Your task to perform on an android device: turn off improve location accuracy Image 0: 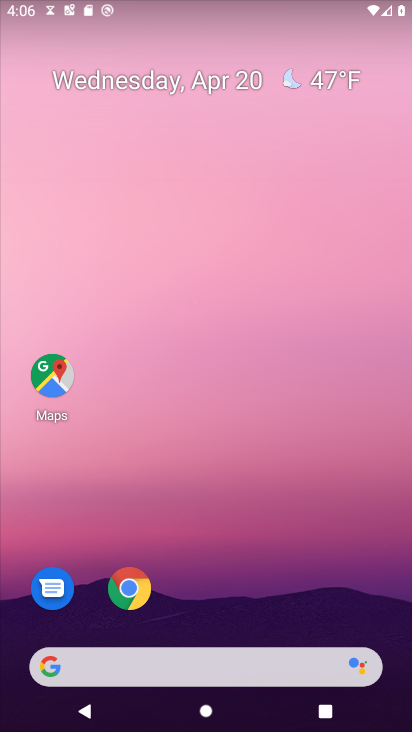
Step 0: drag from (252, 586) to (333, 26)
Your task to perform on an android device: turn off improve location accuracy Image 1: 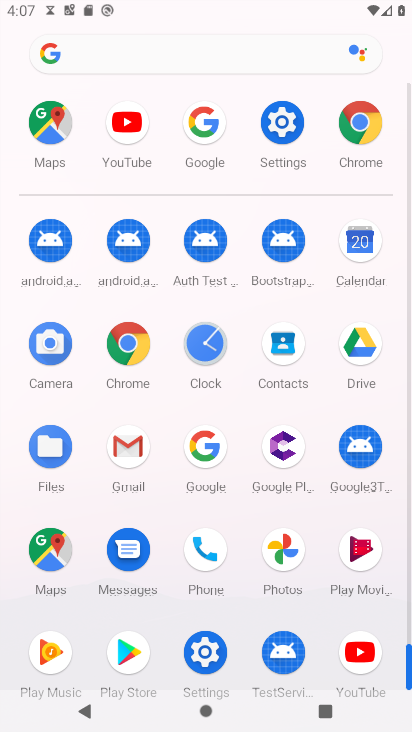
Step 1: click (210, 644)
Your task to perform on an android device: turn off improve location accuracy Image 2: 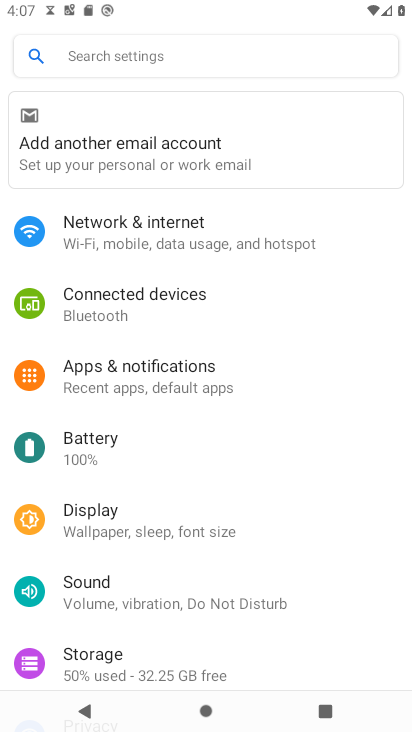
Step 2: drag from (148, 607) to (171, 535)
Your task to perform on an android device: turn off improve location accuracy Image 3: 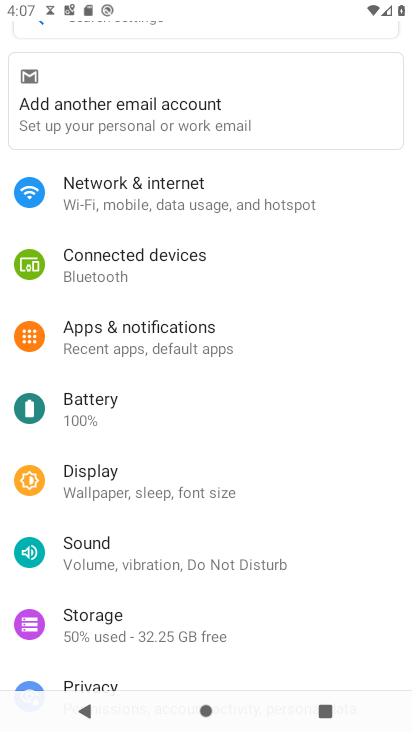
Step 3: drag from (145, 619) to (180, 529)
Your task to perform on an android device: turn off improve location accuracy Image 4: 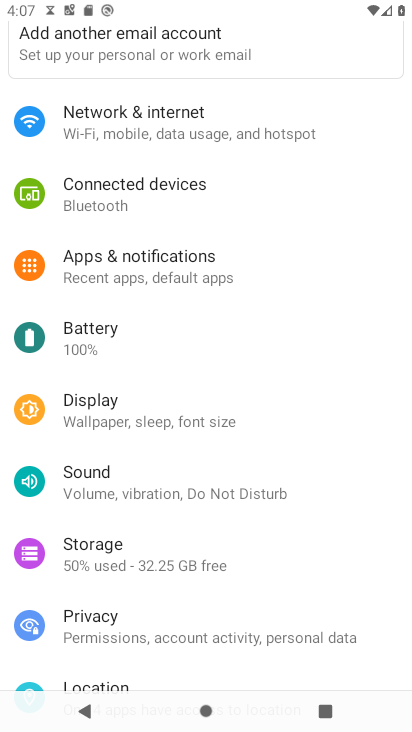
Step 4: drag from (131, 632) to (168, 539)
Your task to perform on an android device: turn off improve location accuracy Image 5: 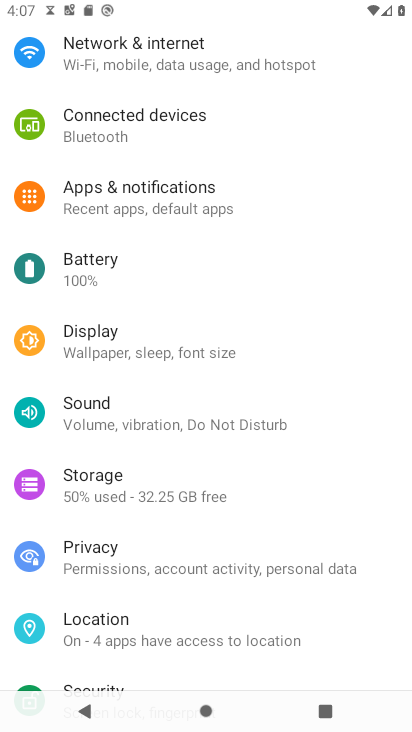
Step 5: click (131, 644)
Your task to perform on an android device: turn off improve location accuracy Image 6: 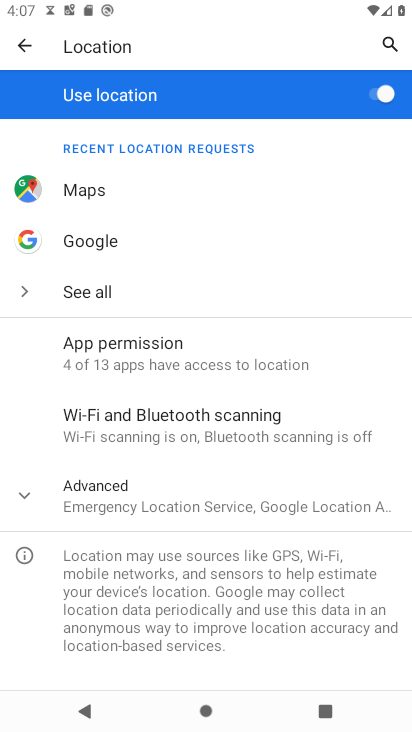
Step 6: click (218, 503)
Your task to perform on an android device: turn off improve location accuracy Image 7: 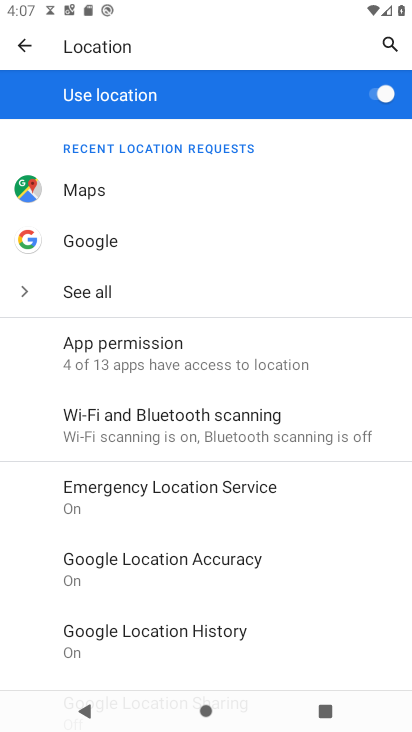
Step 7: click (193, 569)
Your task to perform on an android device: turn off improve location accuracy Image 8: 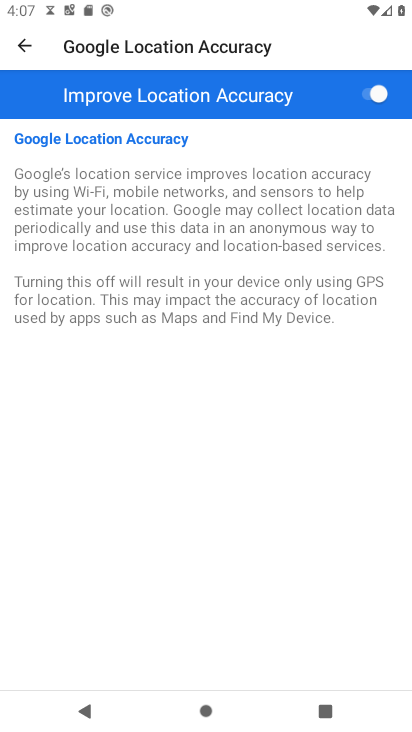
Step 8: click (367, 100)
Your task to perform on an android device: turn off improve location accuracy Image 9: 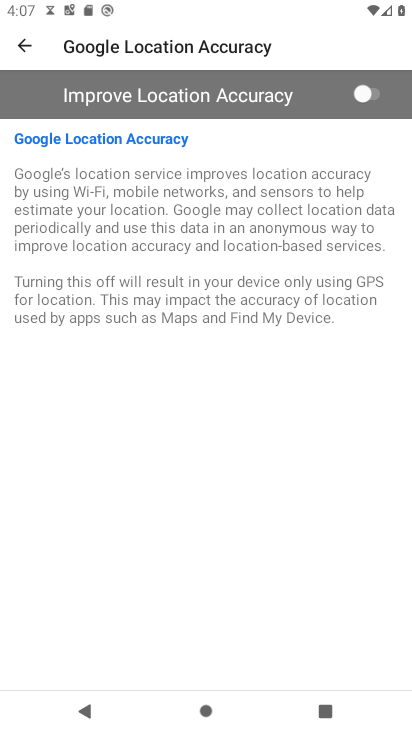
Step 9: task complete